Your task to perform on an android device: see tabs open on other devices in the chrome app Image 0: 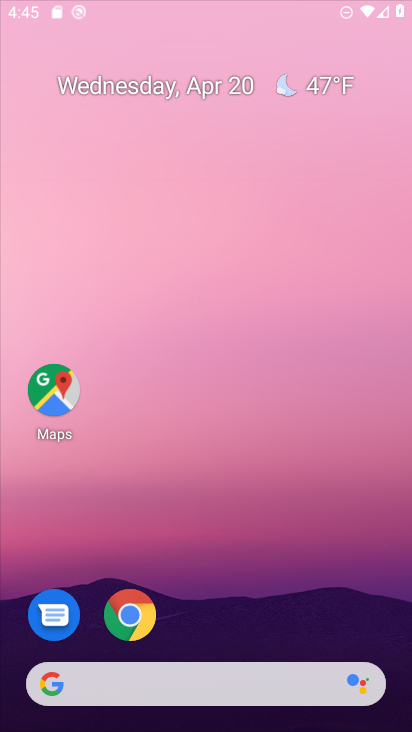
Step 0: click (247, 48)
Your task to perform on an android device: see tabs open on other devices in the chrome app Image 1: 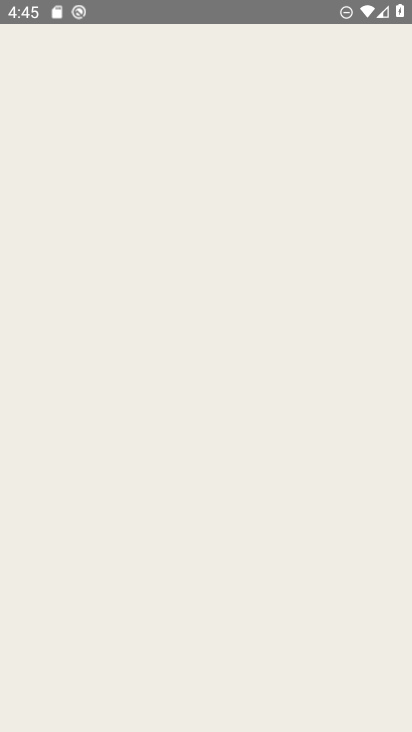
Step 1: press home button
Your task to perform on an android device: see tabs open on other devices in the chrome app Image 2: 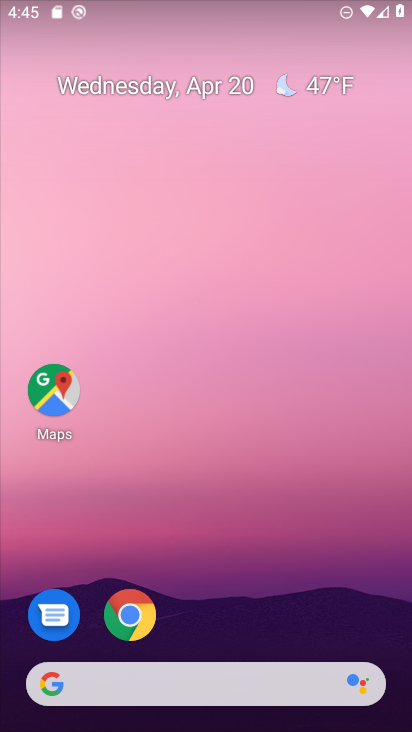
Step 2: drag from (282, 612) to (256, 75)
Your task to perform on an android device: see tabs open on other devices in the chrome app Image 3: 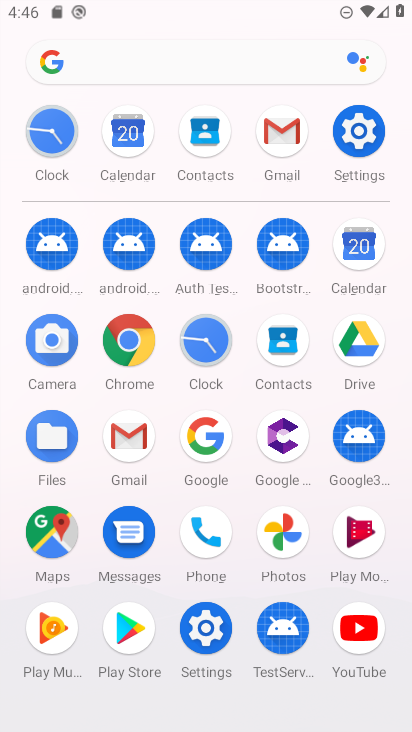
Step 3: click (135, 340)
Your task to perform on an android device: see tabs open on other devices in the chrome app Image 4: 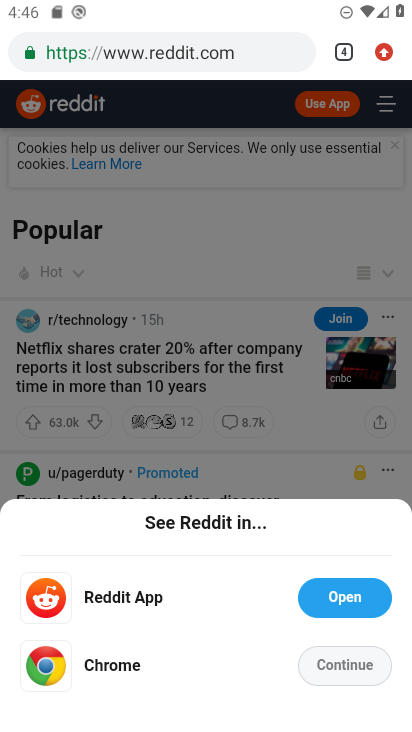
Step 4: click (382, 46)
Your task to perform on an android device: see tabs open on other devices in the chrome app Image 5: 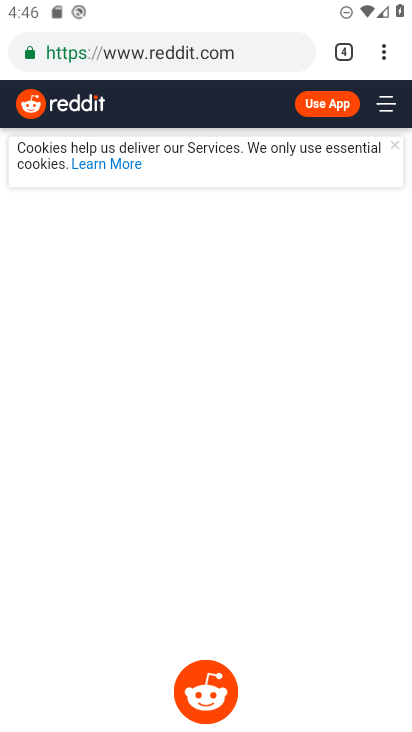
Step 5: click (385, 47)
Your task to perform on an android device: see tabs open on other devices in the chrome app Image 6: 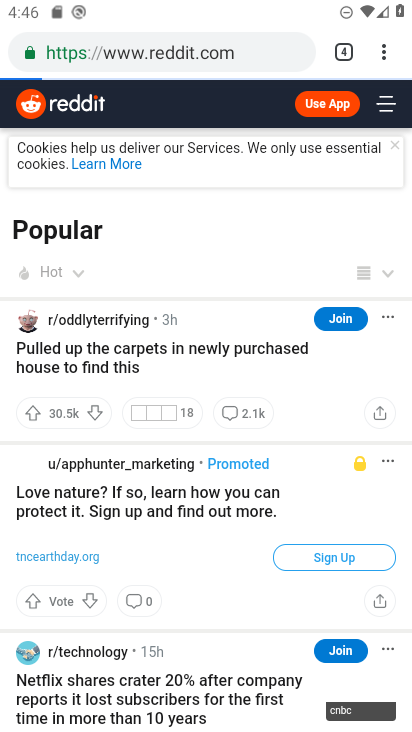
Step 6: click (385, 49)
Your task to perform on an android device: see tabs open on other devices in the chrome app Image 7: 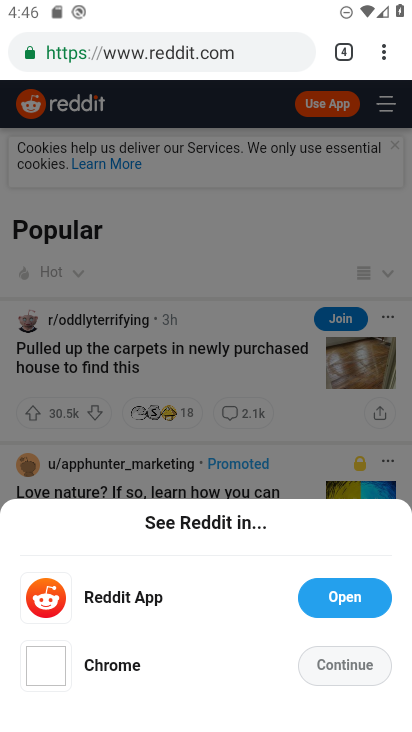
Step 7: click (392, 50)
Your task to perform on an android device: see tabs open on other devices in the chrome app Image 8: 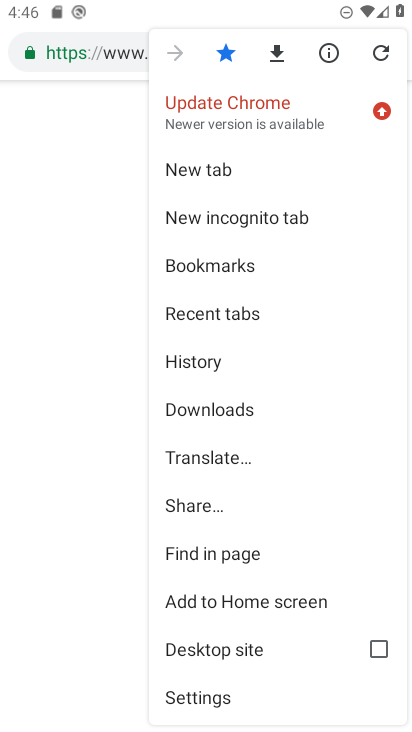
Step 8: click (242, 314)
Your task to perform on an android device: see tabs open on other devices in the chrome app Image 9: 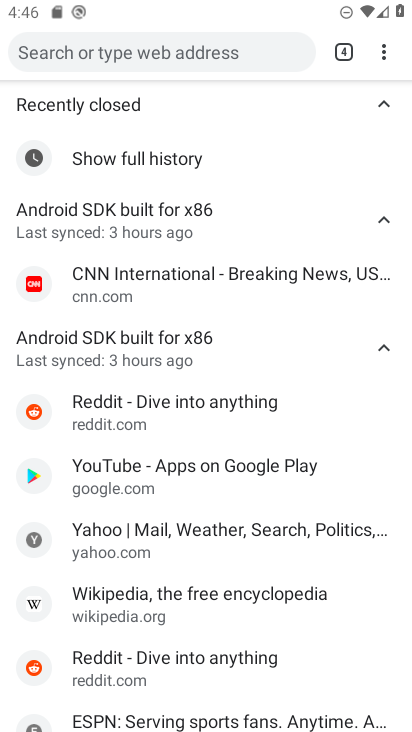
Step 9: task complete